Your task to perform on an android device: open app "Cash App" Image 0: 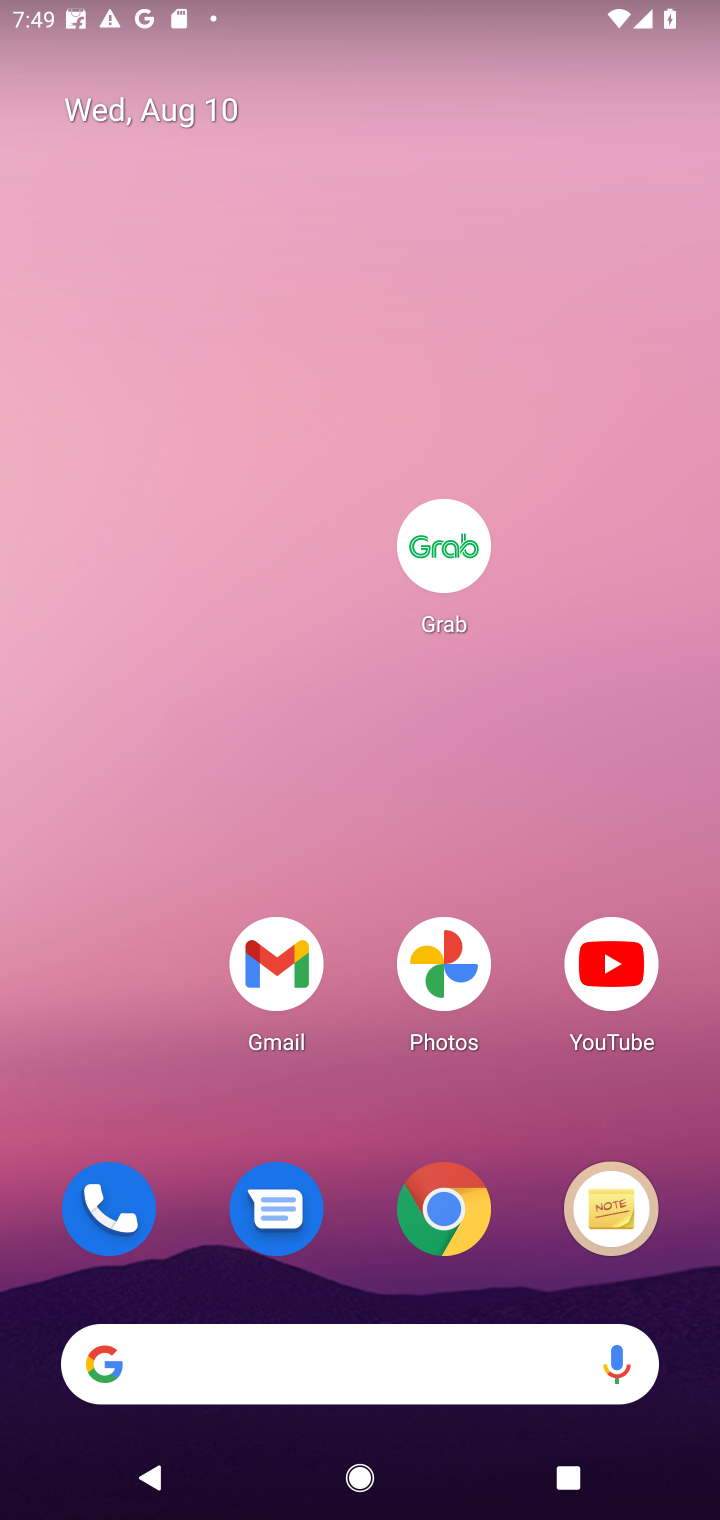
Step 0: drag from (519, 1315) to (519, 321)
Your task to perform on an android device: open app "Cash App" Image 1: 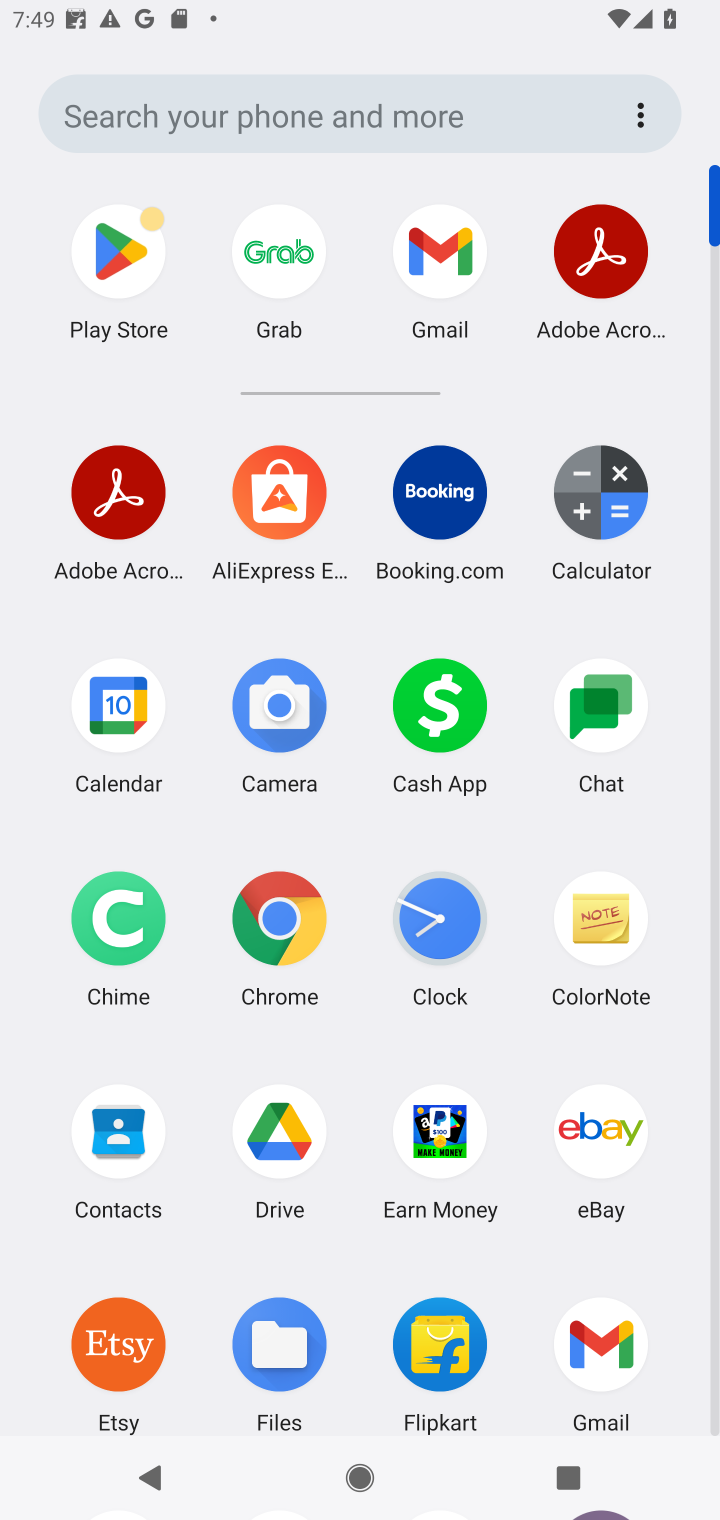
Step 1: click (132, 259)
Your task to perform on an android device: open app "Cash App" Image 2: 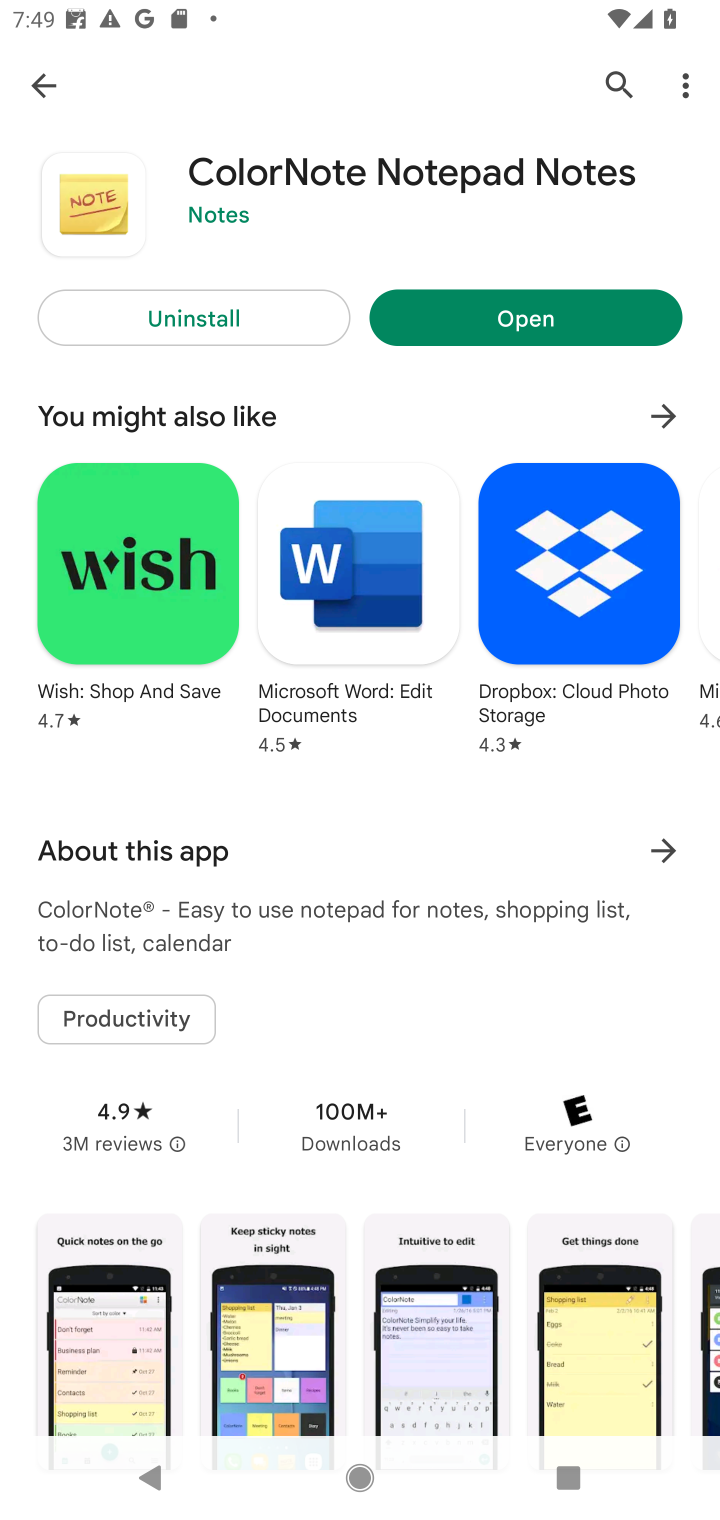
Step 2: click (617, 96)
Your task to perform on an android device: open app "Cash App" Image 3: 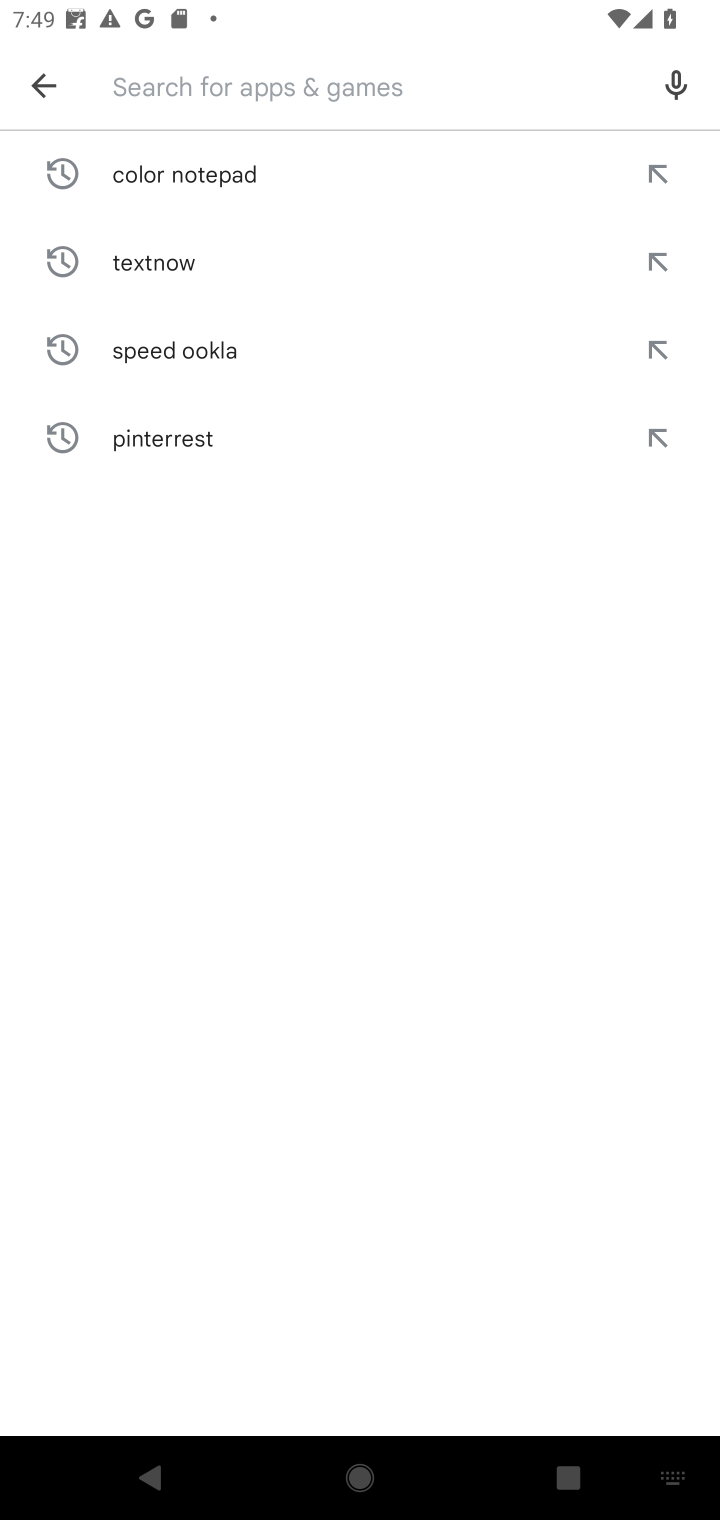
Step 3: type "cash"
Your task to perform on an android device: open app "Cash App" Image 4: 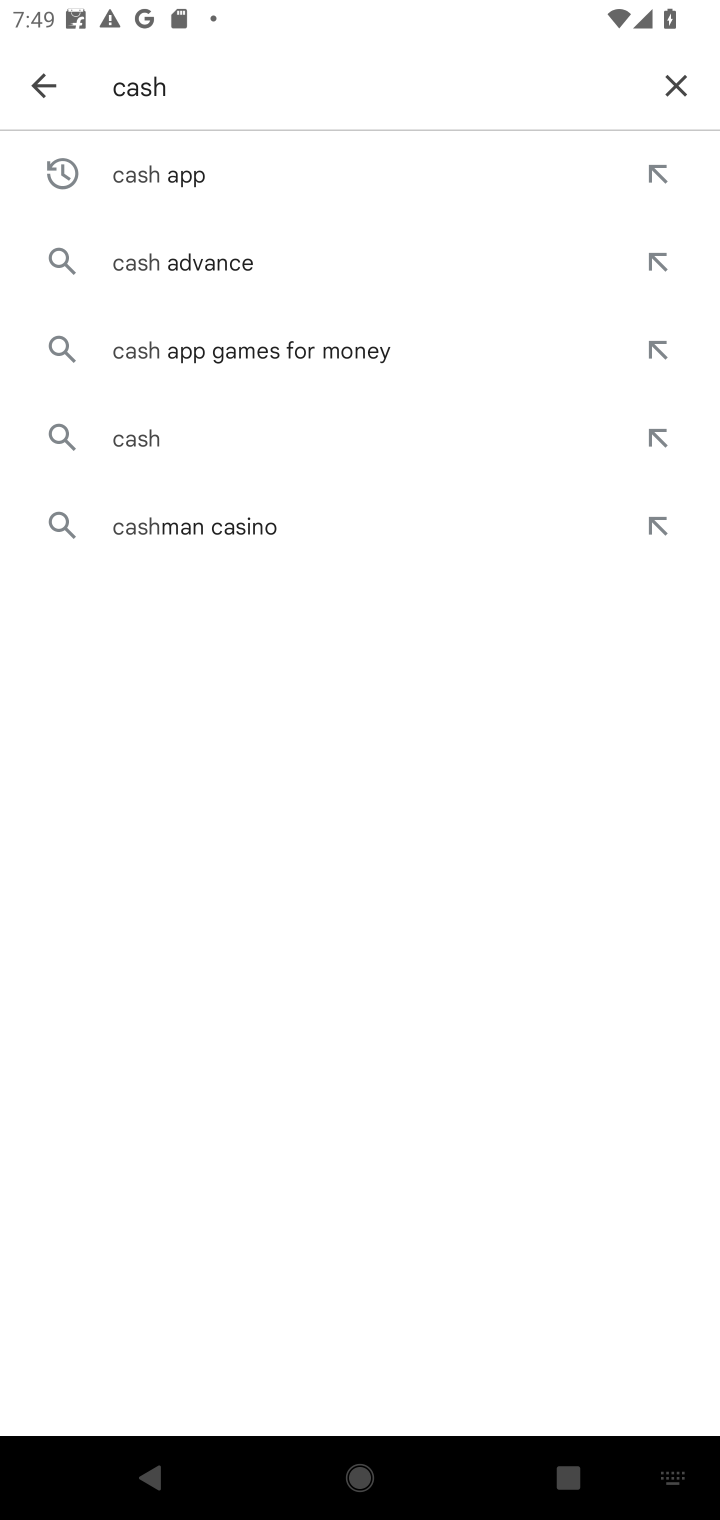
Step 4: click (189, 195)
Your task to perform on an android device: open app "Cash App" Image 5: 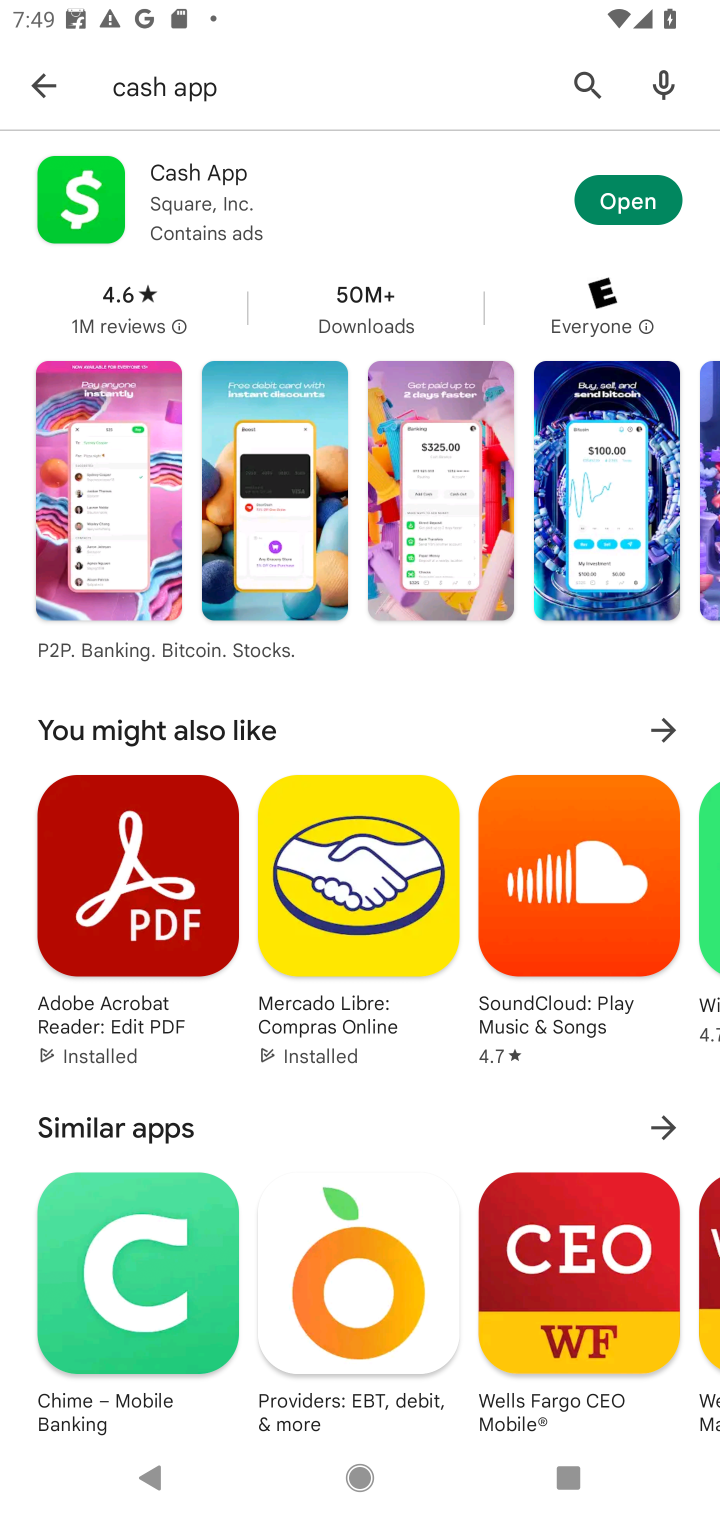
Step 5: click (641, 208)
Your task to perform on an android device: open app "Cash App" Image 6: 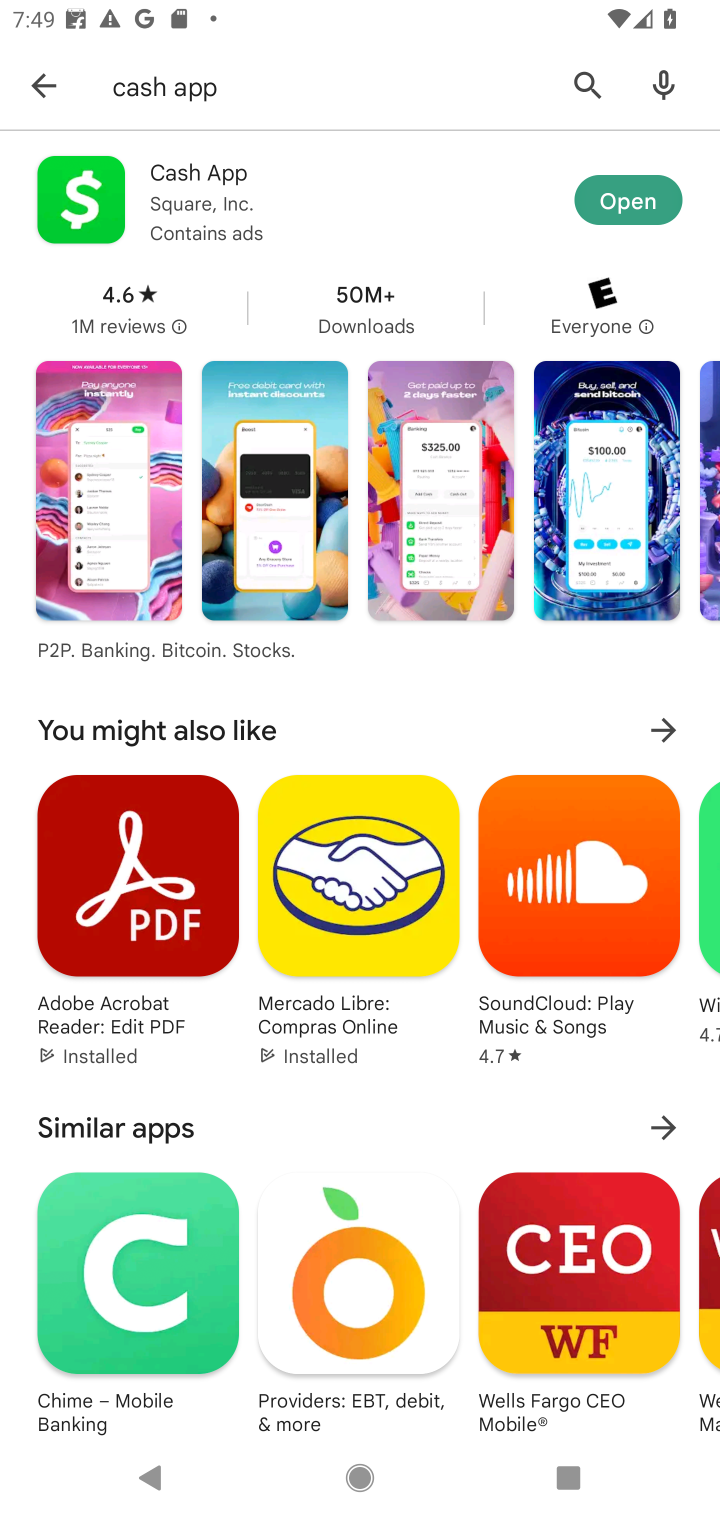
Step 6: task complete